Your task to perform on an android device: change your default location settings in chrome Image 0: 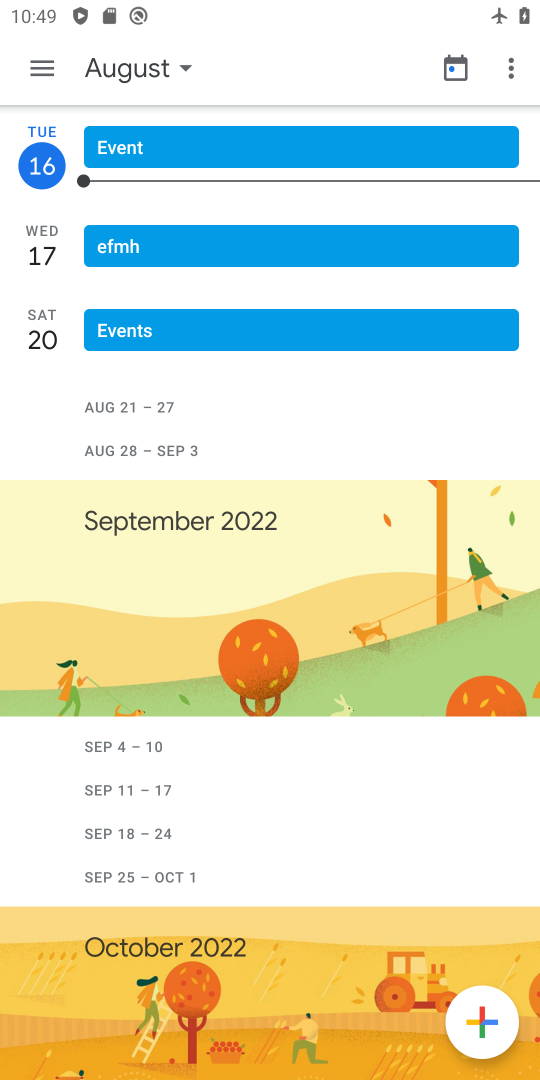
Step 0: press home button
Your task to perform on an android device: change your default location settings in chrome Image 1: 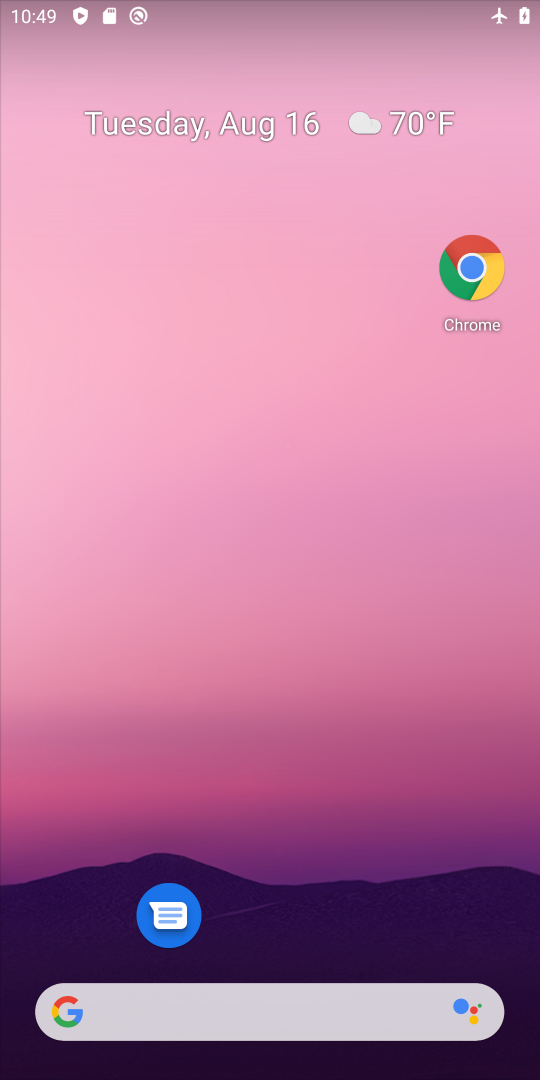
Step 1: click (480, 263)
Your task to perform on an android device: change your default location settings in chrome Image 2: 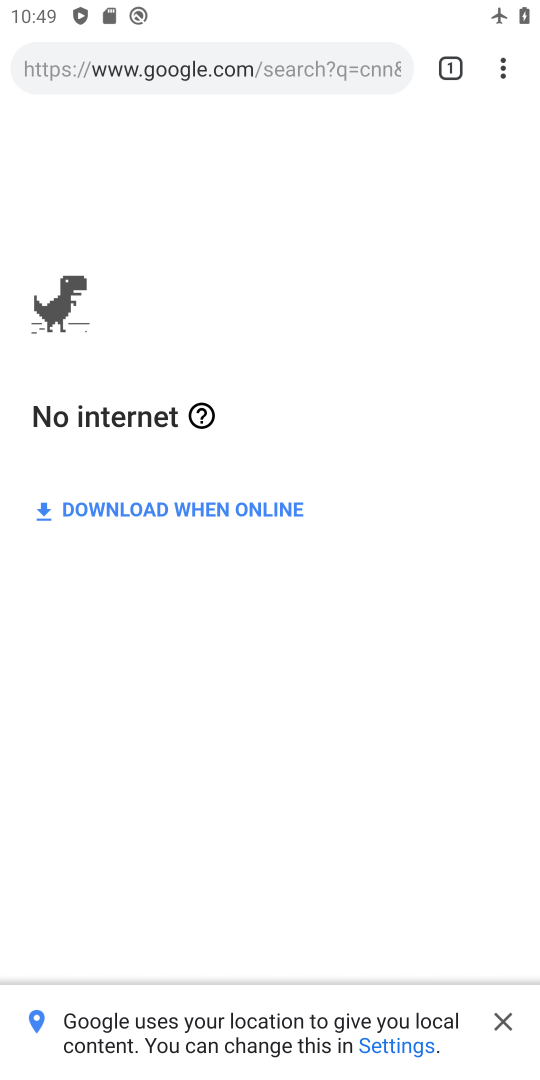
Step 2: click (494, 61)
Your task to perform on an android device: change your default location settings in chrome Image 3: 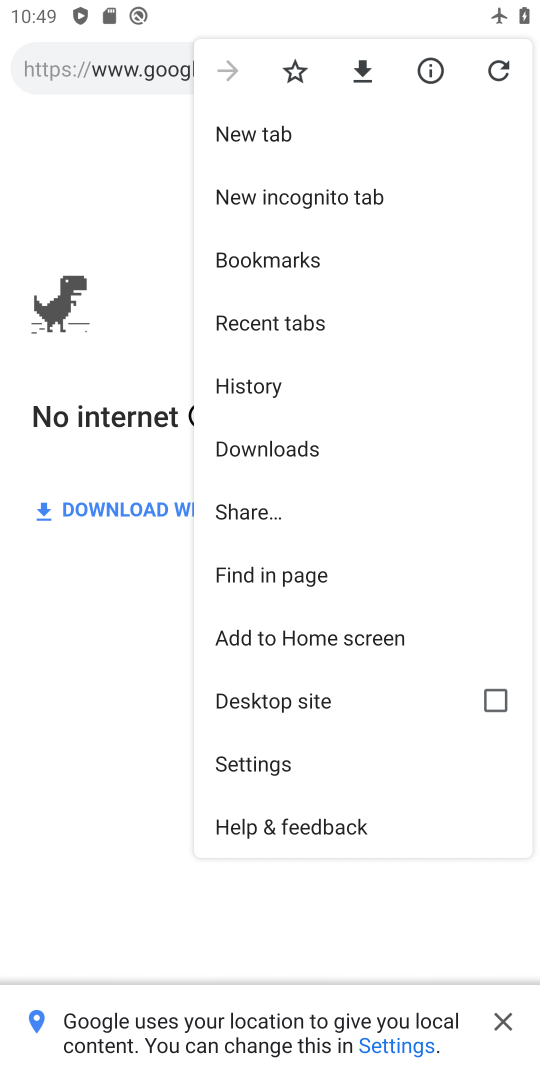
Step 3: click (233, 768)
Your task to perform on an android device: change your default location settings in chrome Image 4: 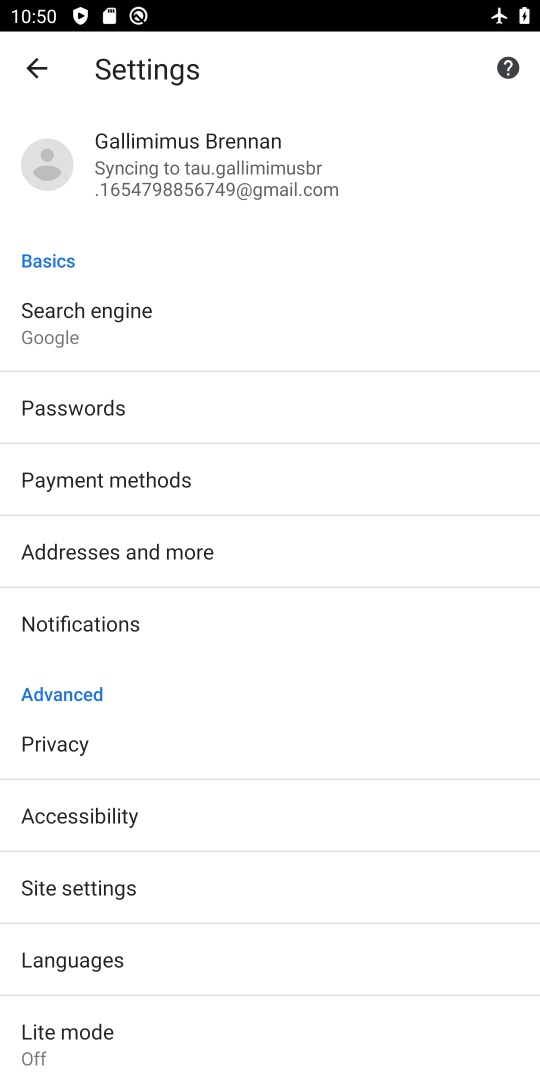
Step 4: click (132, 346)
Your task to perform on an android device: change your default location settings in chrome Image 5: 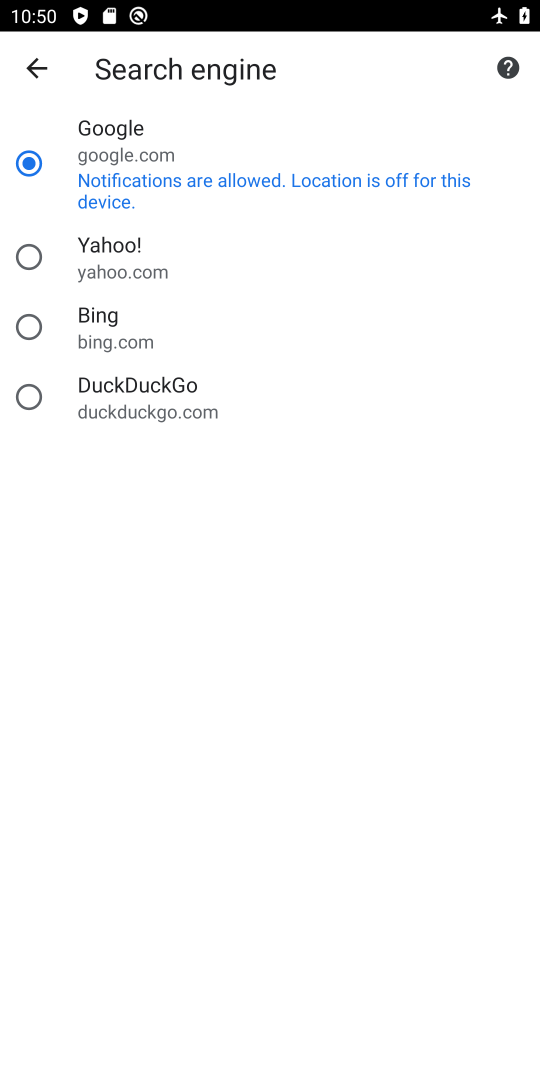
Step 5: click (38, 82)
Your task to perform on an android device: change your default location settings in chrome Image 6: 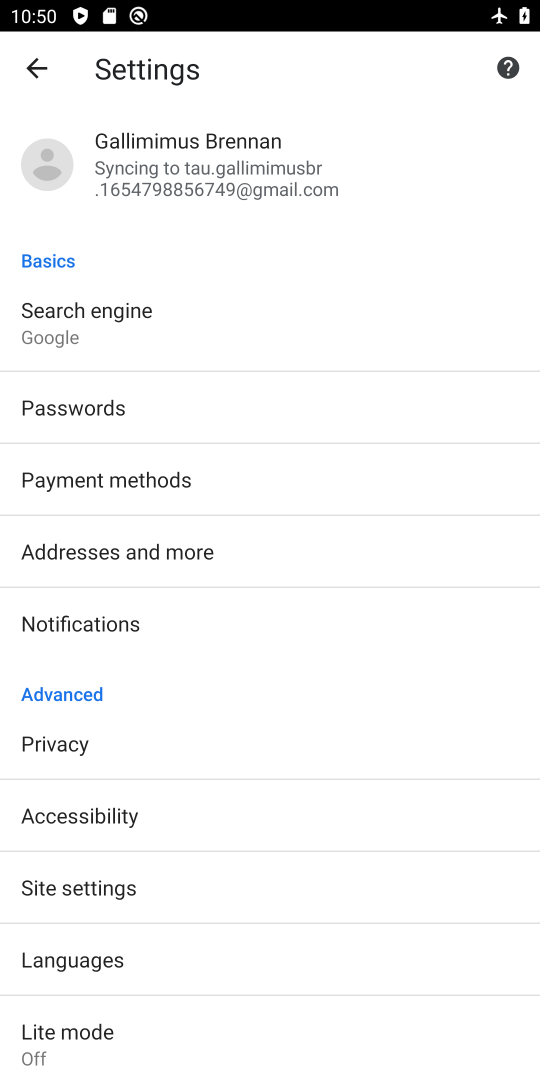
Step 6: drag from (100, 960) to (89, 441)
Your task to perform on an android device: change your default location settings in chrome Image 7: 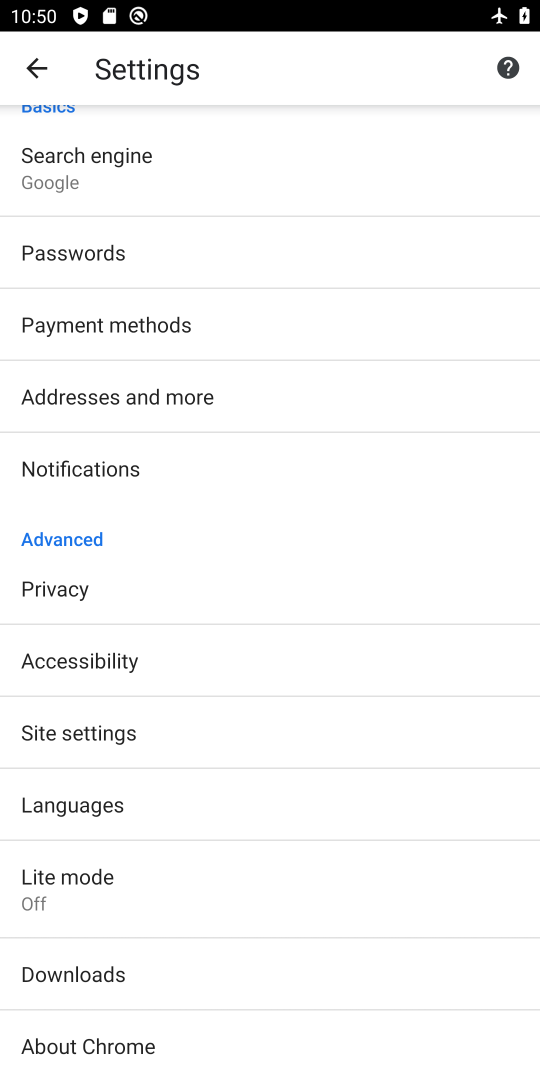
Step 7: click (84, 759)
Your task to perform on an android device: change your default location settings in chrome Image 8: 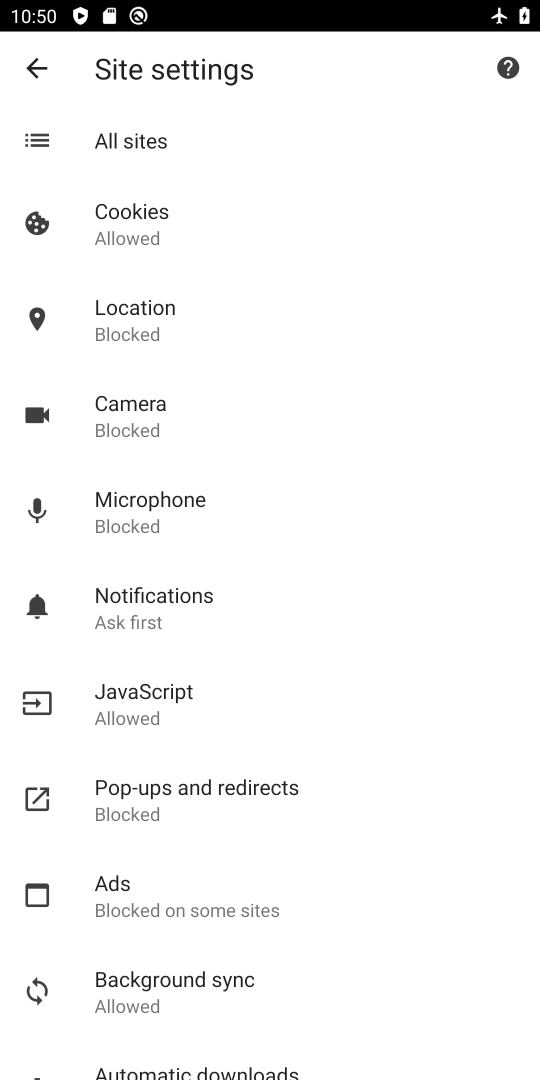
Step 8: click (86, 344)
Your task to perform on an android device: change your default location settings in chrome Image 9: 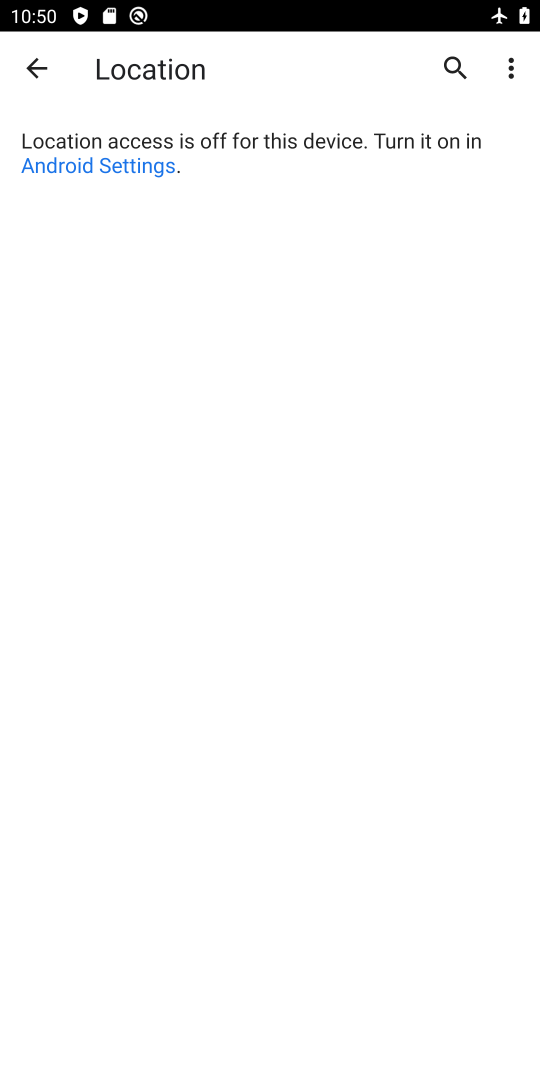
Step 9: task complete